Your task to perform on an android device: see tabs open on other devices in the chrome app Image 0: 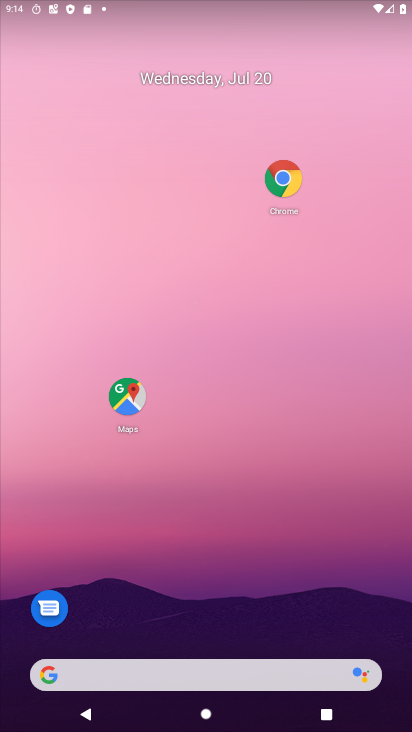
Step 0: drag from (213, 598) to (218, 86)
Your task to perform on an android device: see tabs open on other devices in the chrome app Image 1: 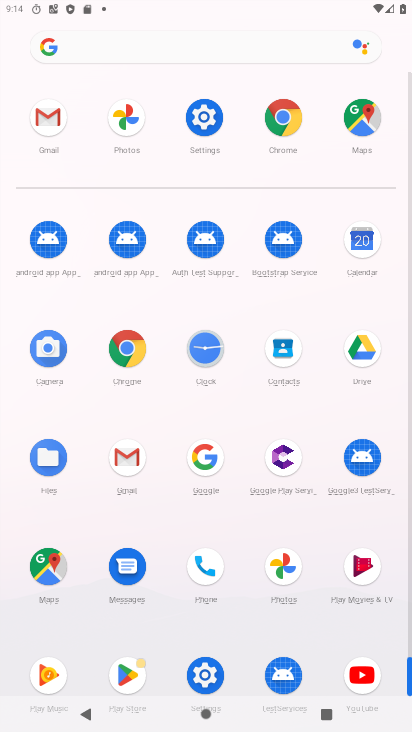
Step 1: click (131, 369)
Your task to perform on an android device: see tabs open on other devices in the chrome app Image 2: 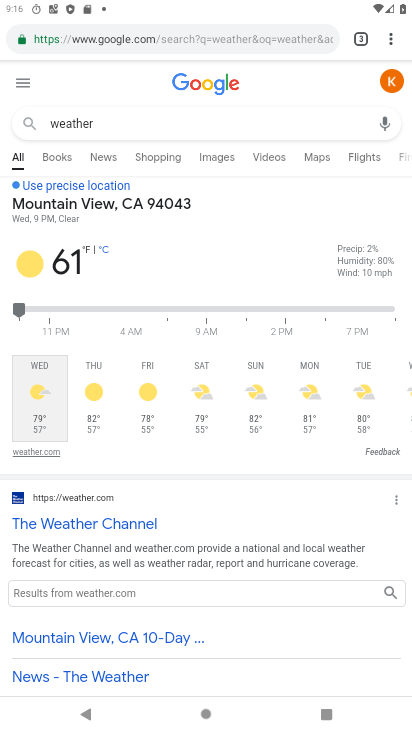
Step 2: click (386, 39)
Your task to perform on an android device: see tabs open on other devices in the chrome app Image 3: 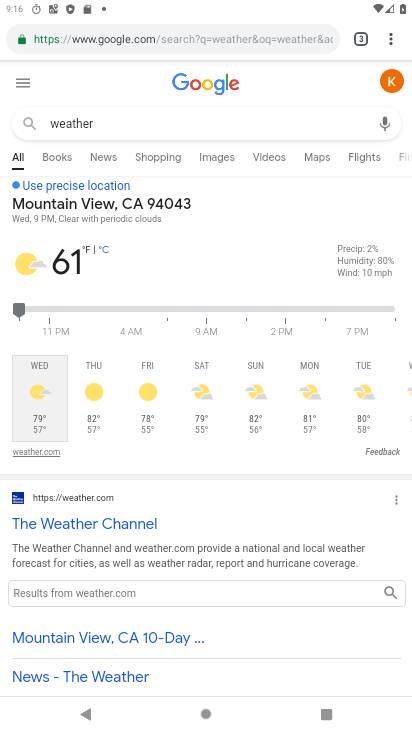
Step 3: click (385, 39)
Your task to perform on an android device: see tabs open on other devices in the chrome app Image 4: 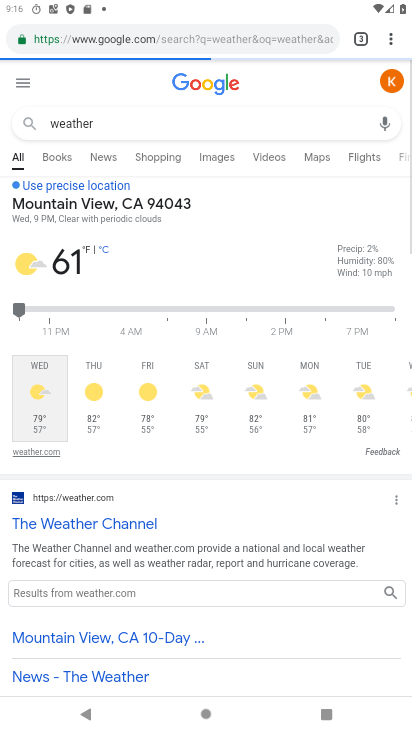
Step 4: click (389, 43)
Your task to perform on an android device: see tabs open on other devices in the chrome app Image 5: 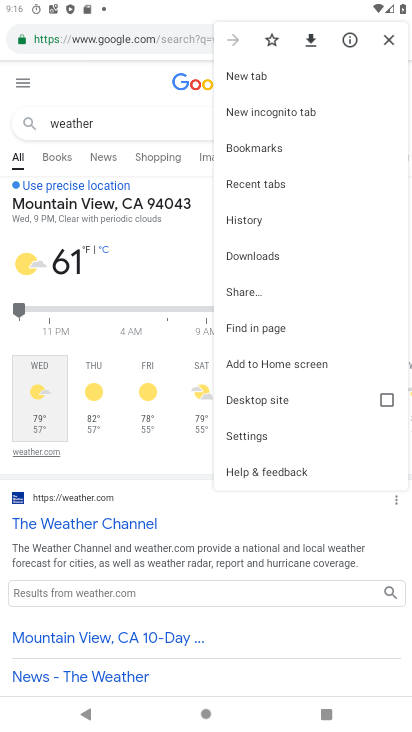
Step 5: click (284, 186)
Your task to perform on an android device: see tabs open on other devices in the chrome app Image 6: 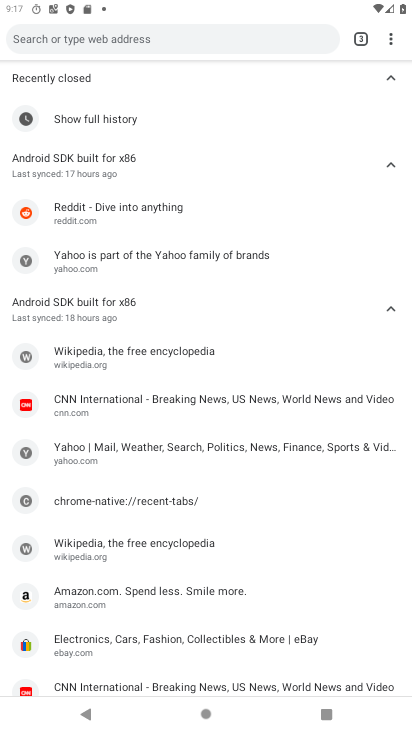
Step 6: task complete